Your task to perform on an android device: clear all cookies in the chrome app Image 0: 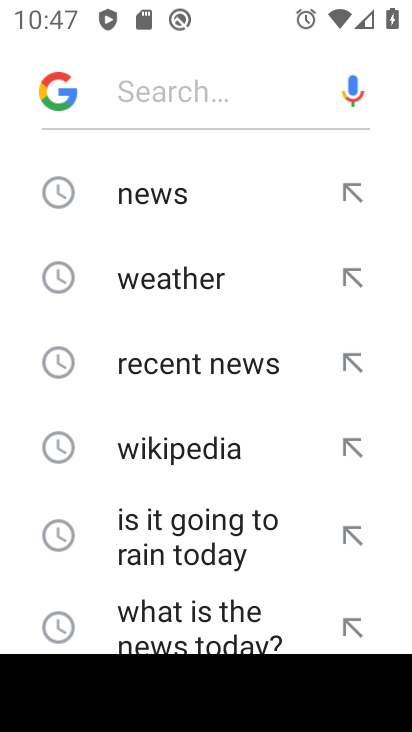
Step 0: press back button
Your task to perform on an android device: clear all cookies in the chrome app Image 1: 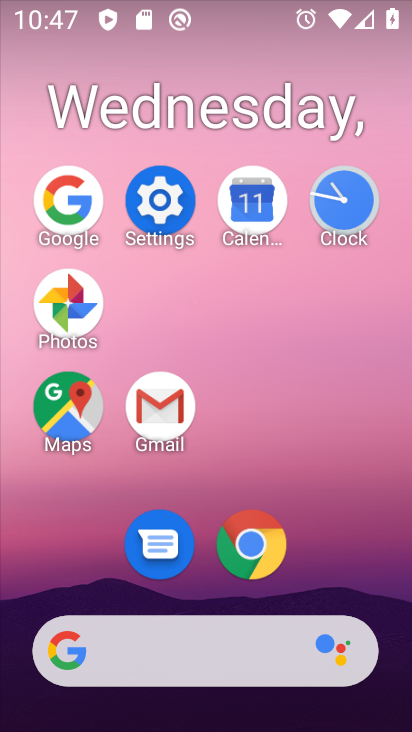
Step 1: click (256, 562)
Your task to perform on an android device: clear all cookies in the chrome app Image 2: 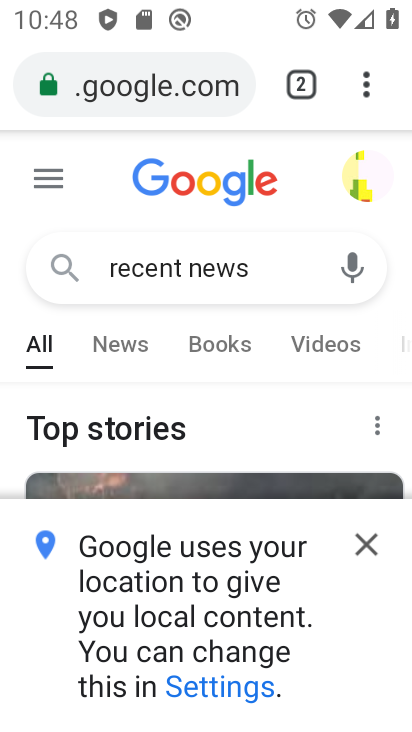
Step 2: click (373, 82)
Your task to perform on an android device: clear all cookies in the chrome app Image 3: 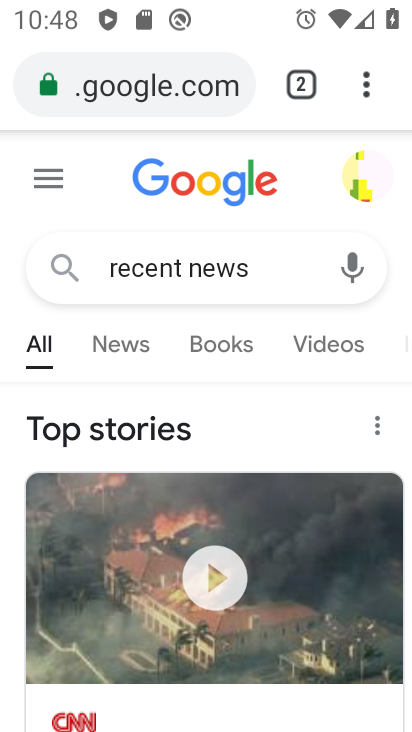
Step 3: click (363, 81)
Your task to perform on an android device: clear all cookies in the chrome app Image 4: 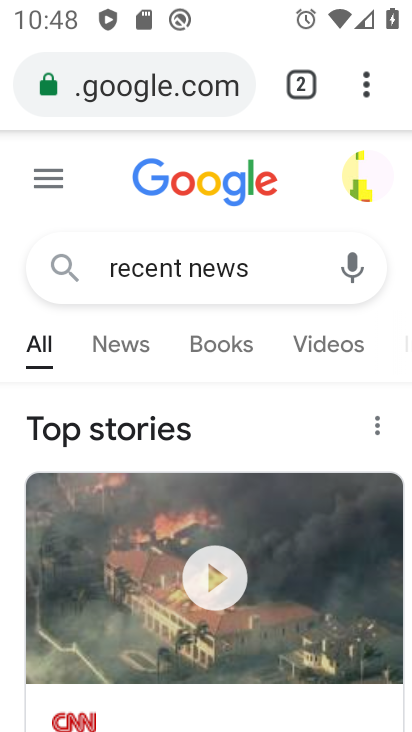
Step 4: click (366, 81)
Your task to perform on an android device: clear all cookies in the chrome app Image 5: 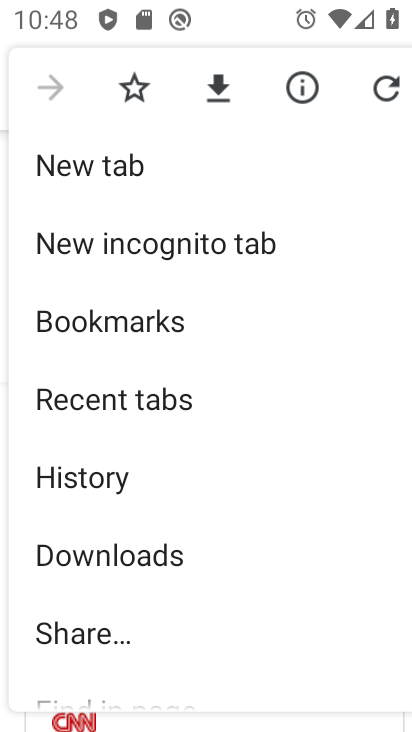
Step 5: drag from (221, 630) to (204, 191)
Your task to perform on an android device: clear all cookies in the chrome app Image 6: 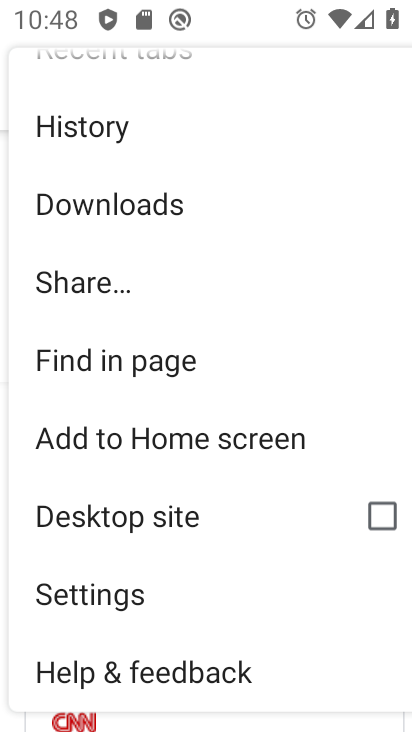
Step 6: click (177, 596)
Your task to perform on an android device: clear all cookies in the chrome app Image 7: 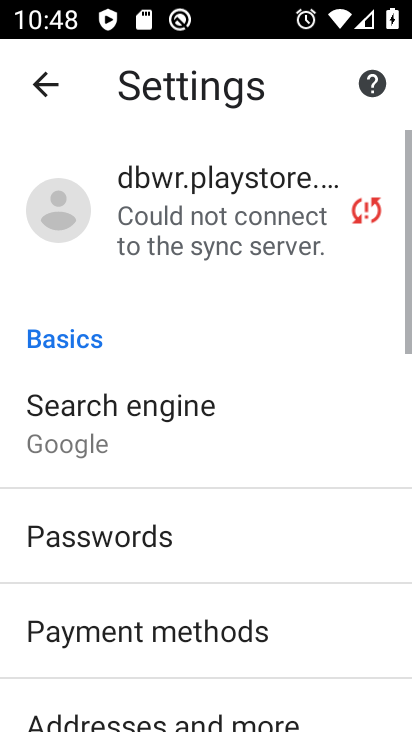
Step 7: drag from (177, 596) to (204, 149)
Your task to perform on an android device: clear all cookies in the chrome app Image 8: 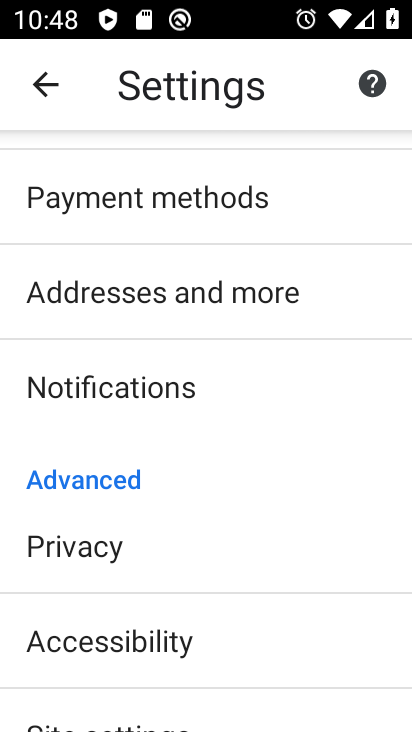
Step 8: click (205, 531)
Your task to perform on an android device: clear all cookies in the chrome app Image 9: 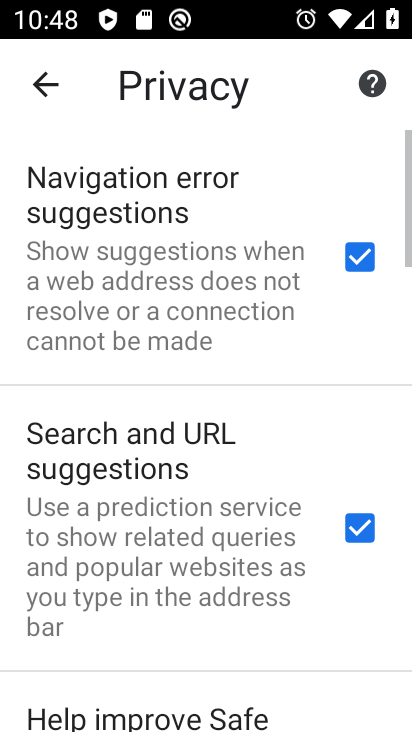
Step 9: drag from (199, 647) to (224, 180)
Your task to perform on an android device: clear all cookies in the chrome app Image 10: 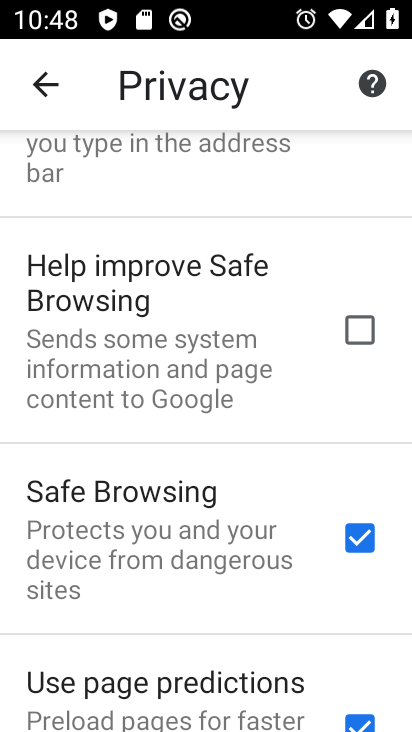
Step 10: drag from (220, 612) to (219, 189)
Your task to perform on an android device: clear all cookies in the chrome app Image 11: 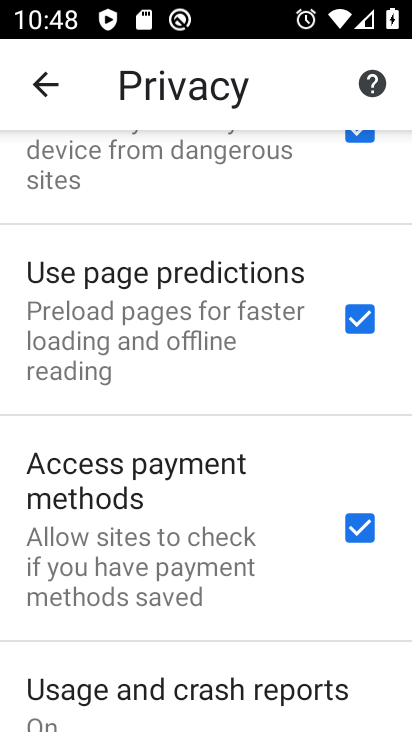
Step 11: drag from (224, 620) to (263, 224)
Your task to perform on an android device: clear all cookies in the chrome app Image 12: 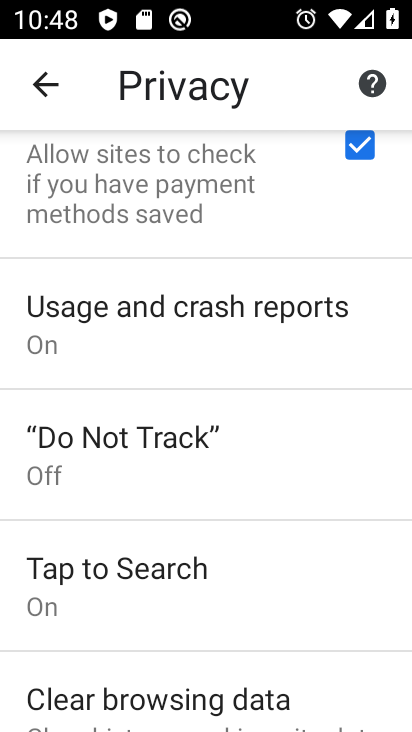
Step 12: drag from (228, 644) to (248, 259)
Your task to perform on an android device: clear all cookies in the chrome app Image 13: 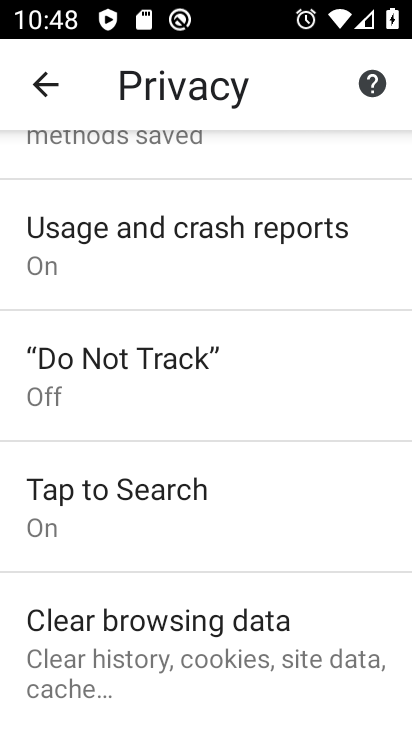
Step 13: click (252, 595)
Your task to perform on an android device: clear all cookies in the chrome app Image 14: 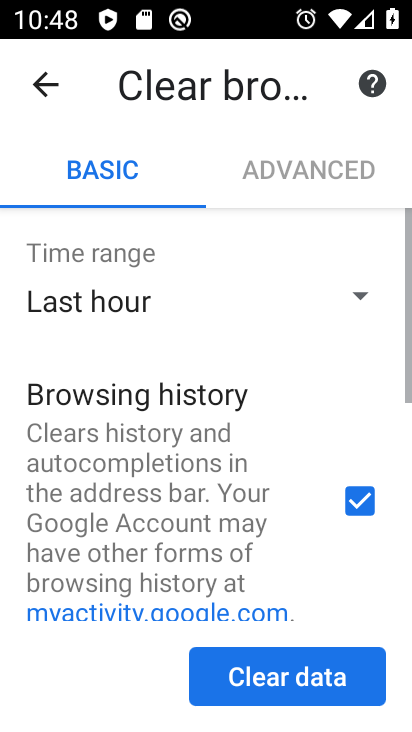
Step 14: drag from (252, 594) to (247, 185)
Your task to perform on an android device: clear all cookies in the chrome app Image 15: 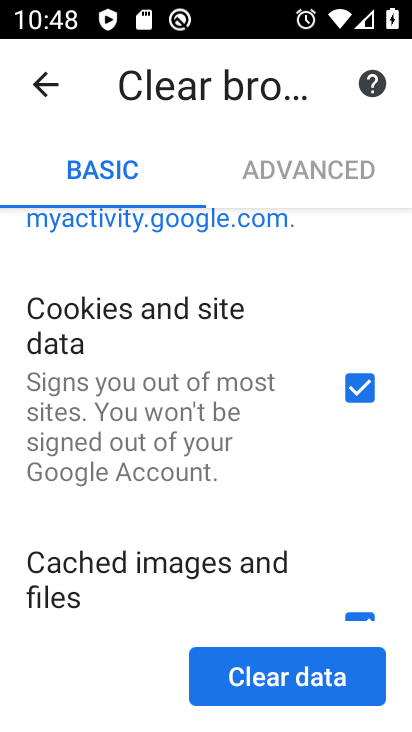
Step 15: drag from (251, 617) to (274, 309)
Your task to perform on an android device: clear all cookies in the chrome app Image 16: 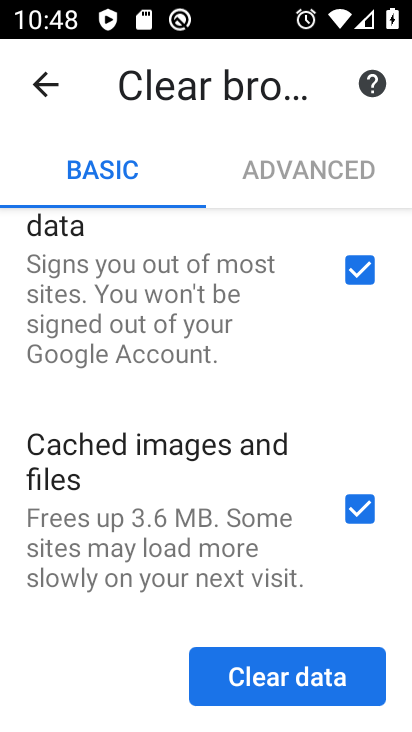
Step 16: click (273, 669)
Your task to perform on an android device: clear all cookies in the chrome app Image 17: 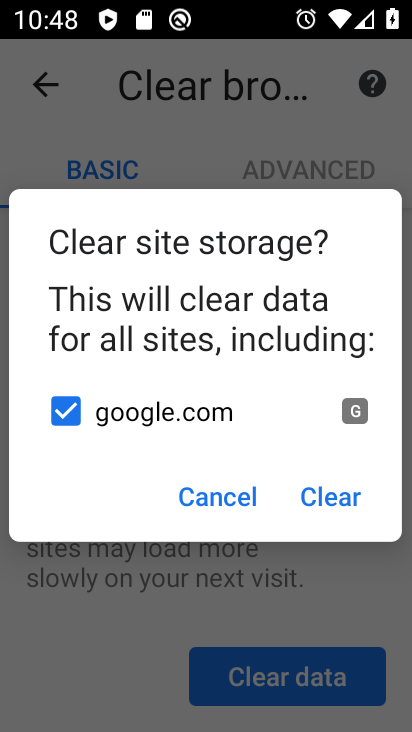
Step 17: click (351, 492)
Your task to perform on an android device: clear all cookies in the chrome app Image 18: 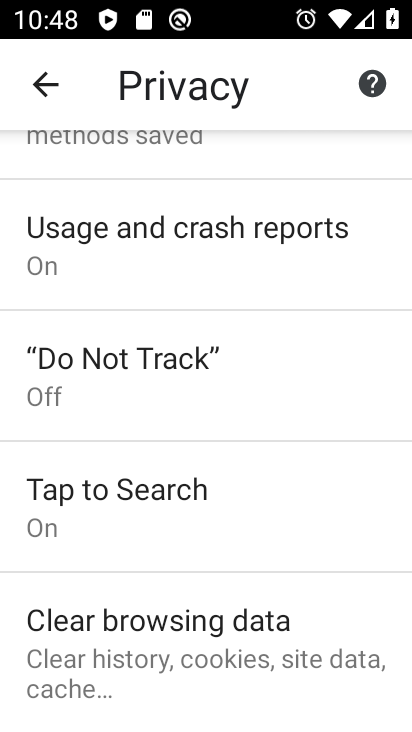
Step 18: task complete